Your task to perform on an android device: Go to Google Image 0: 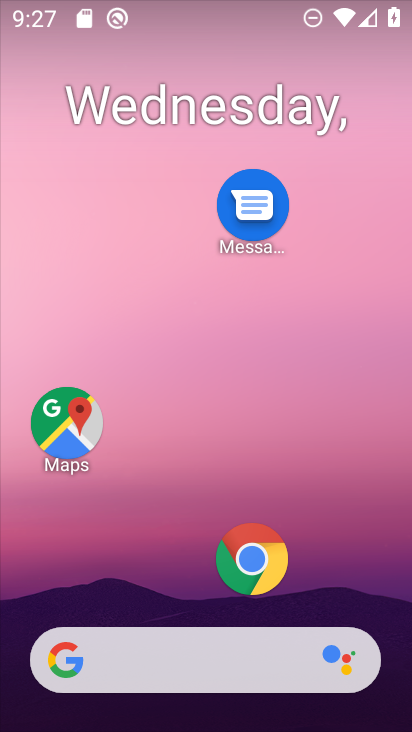
Step 0: drag from (180, 600) to (166, 88)
Your task to perform on an android device: Go to Google Image 1: 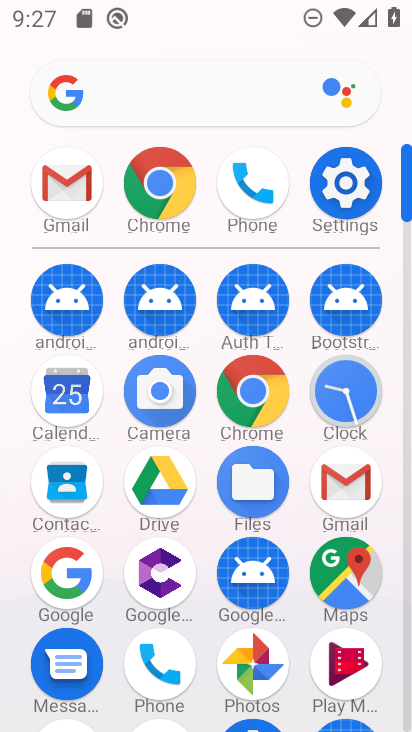
Step 1: drag from (172, 528) to (191, 349)
Your task to perform on an android device: Go to Google Image 2: 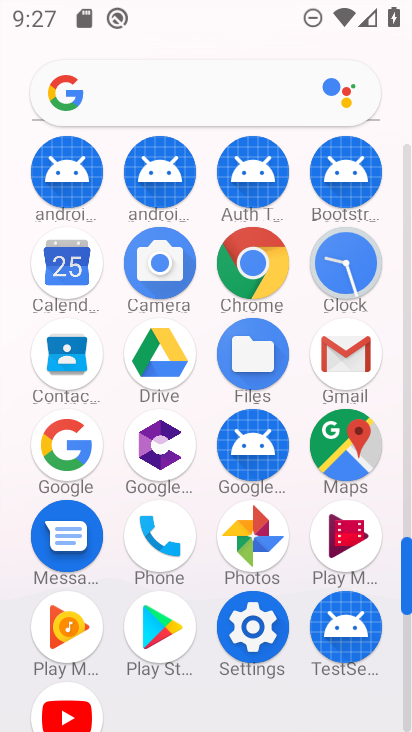
Step 2: click (82, 464)
Your task to perform on an android device: Go to Google Image 3: 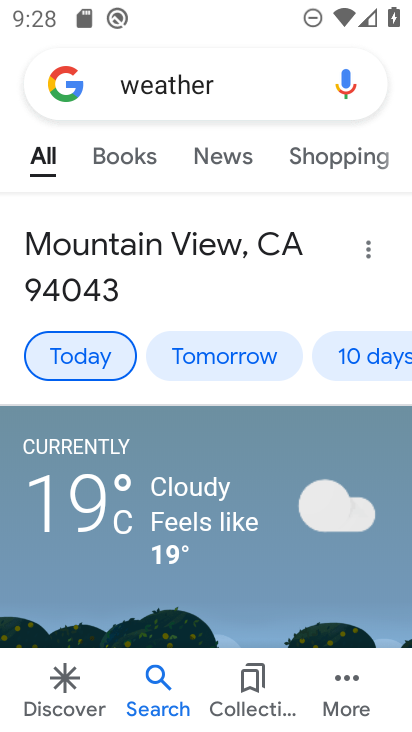
Step 3: task complete